Your task to perform on an android device: add a contact Image 0: 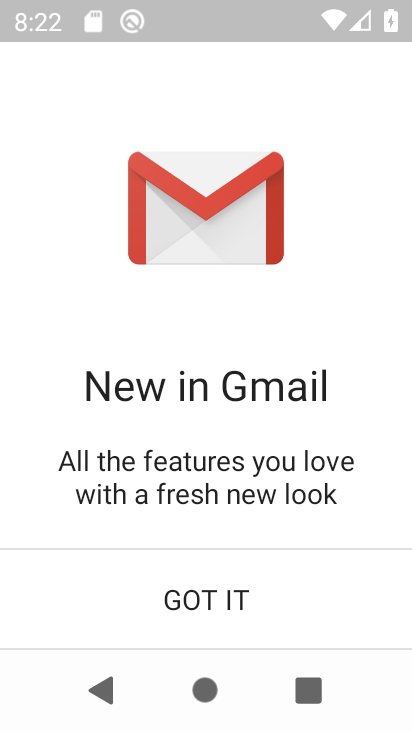
Step 0: press home button
Your task to perform on an android device: add a contact Image 1: 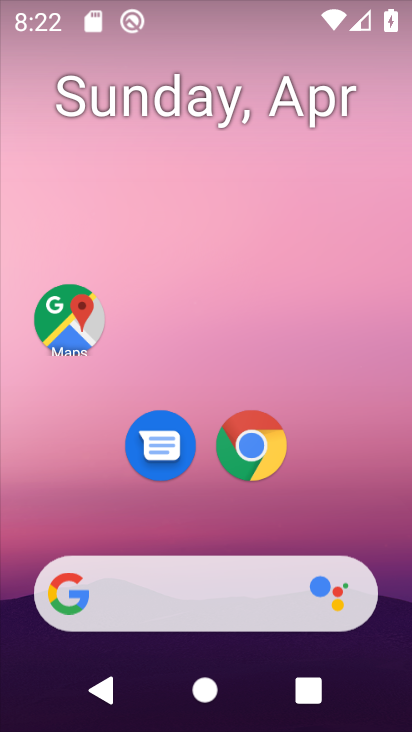
Step 1: drag from (219, 507) to (237, 243)
Your task to perform on an android device: add a contact Image 2: 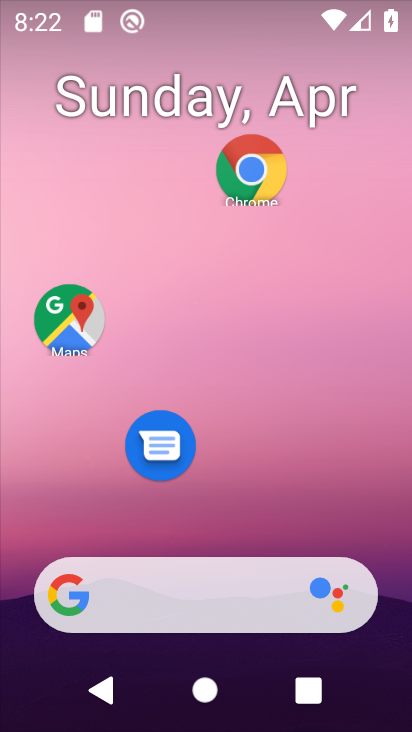
Step 2: drag from (245, 523) to (334, 57)
Your task to perform on an android device: add a contact Image 3: 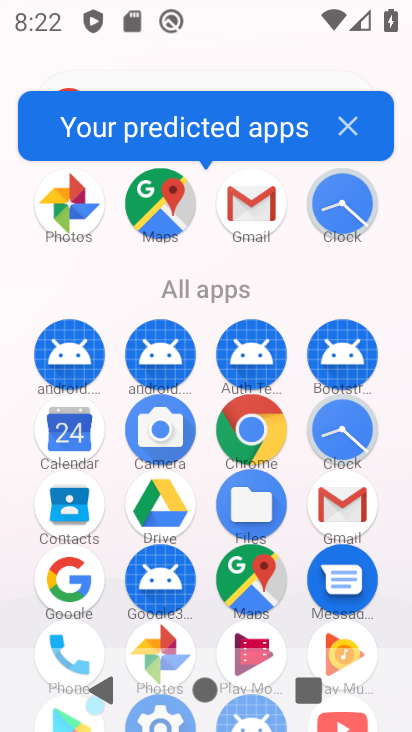
Step 3: click (69, 511)
Your task to perform on an android device: add a contact Image 4: 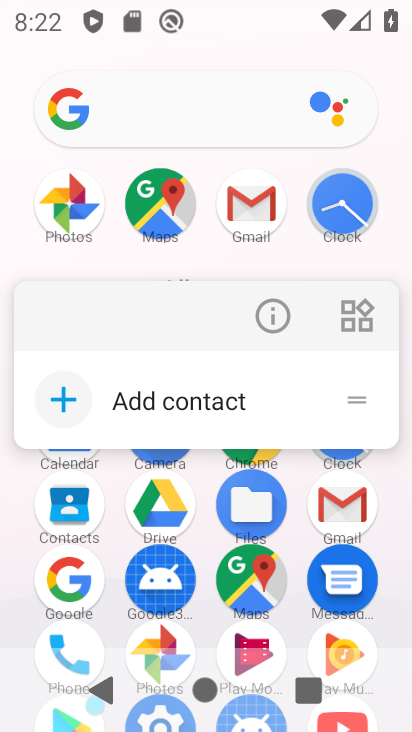
Step 4: click (73, 501)
Your task to perform on an android device: add a contact Image 5: 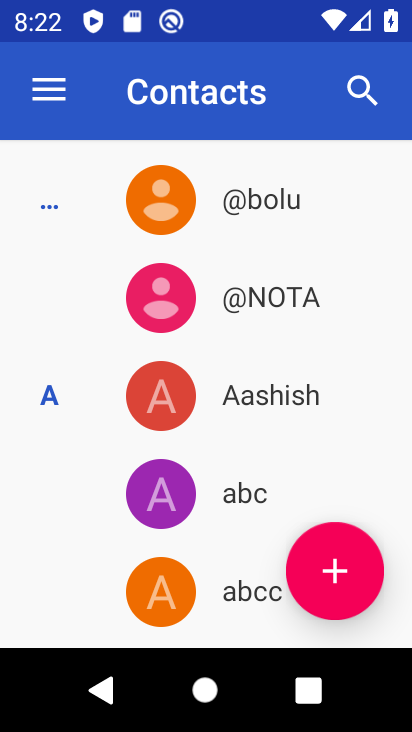
Step 5: click (343, 566)
Your task to perform on an android device: add a contact Image 6: 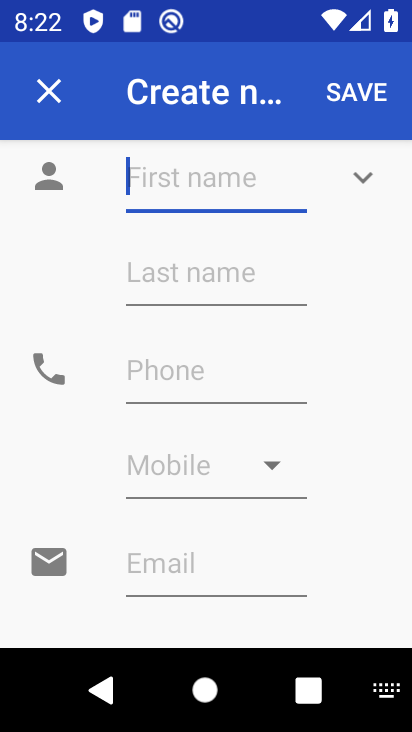
Step 6: type "gdhhv"
Your task to perform on an android device: add a contact Image 7: 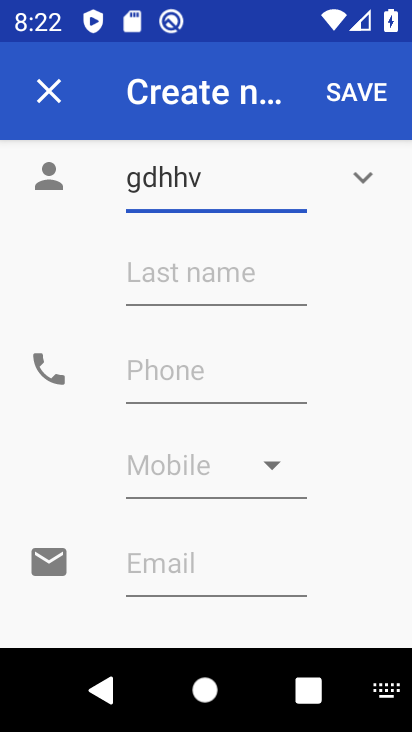
Step 7: click (367, 90)
Your task to perform on an android device: add a contact Image 8: 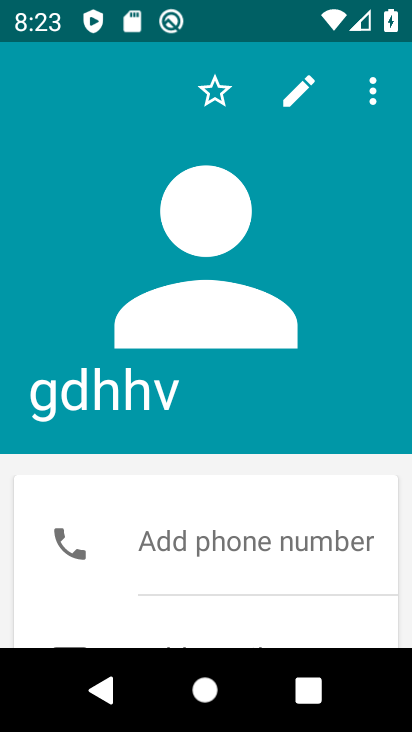
Step 8: task complete